Your task to perform on an android device: Go to sound settings Image 0: 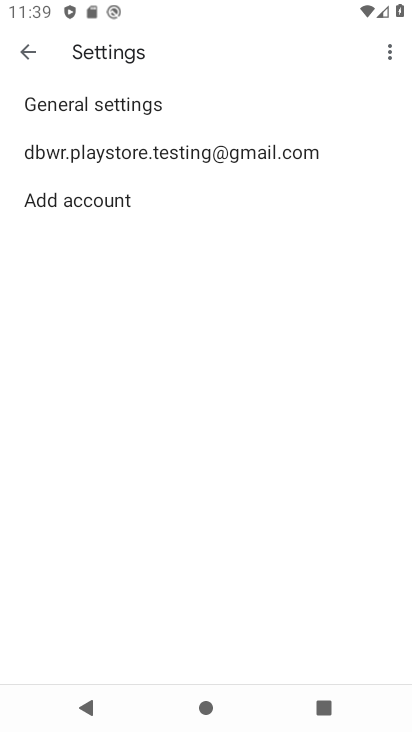
Step 0: press home button
Your task to perform on an android device: Go to sound settings Image 1: 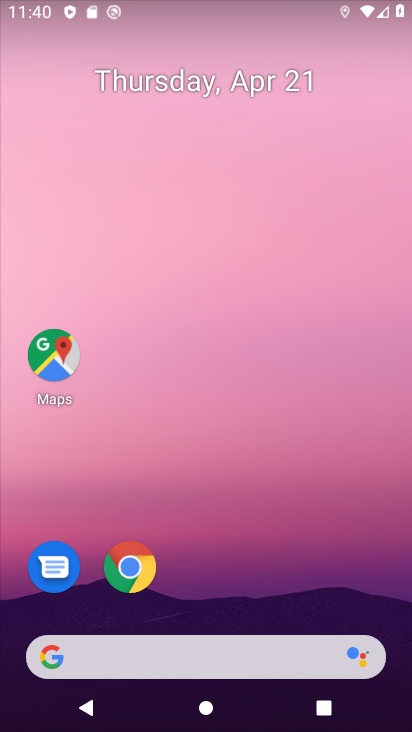
Step 1: drag from (175, 593) to (296, 150)
Your task to perform on an android device: Go to sound settings Image 2: 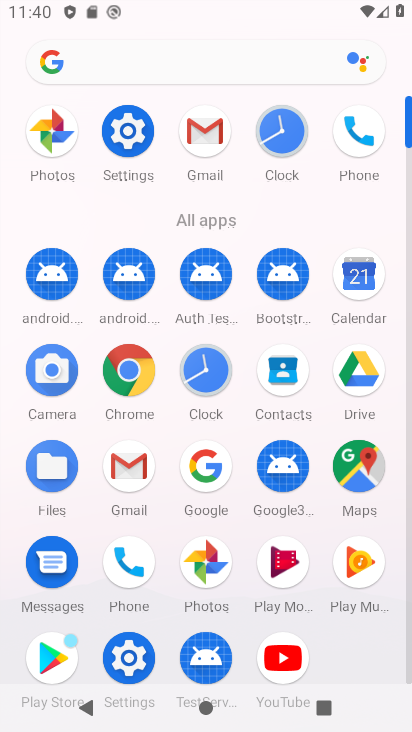
Step 2: click (138, 662)
Your task to perform on an android device: Go to sound settings Image 3: 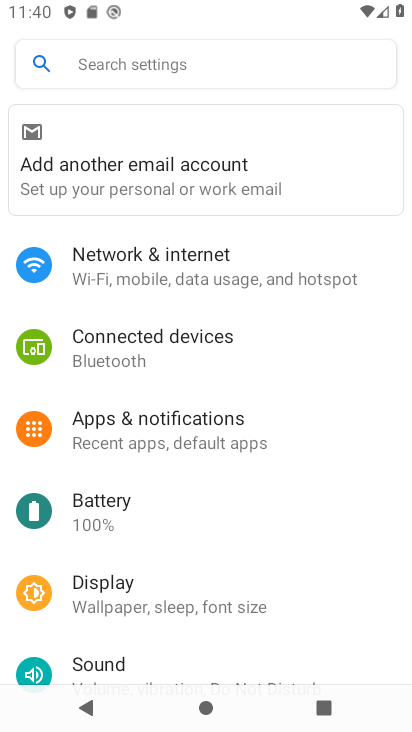
Step 3: drag from (203, 557) to (246, 288)
Your task to perform on an android device: Go to sound settings Image 4: 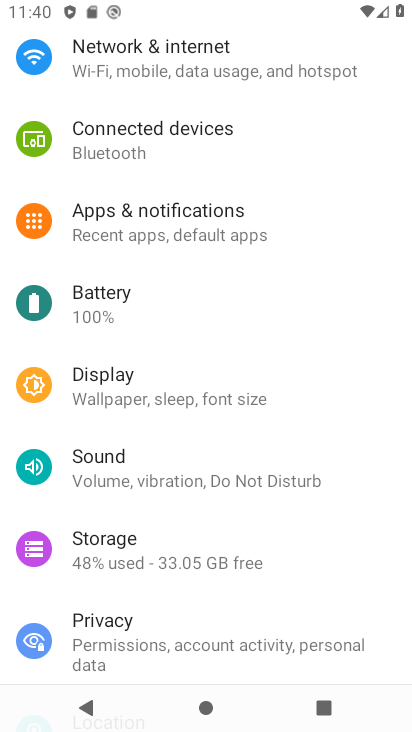
Step 4: click (131, 479)
Your task to perform on an android device: Go to sound settings Image 5: 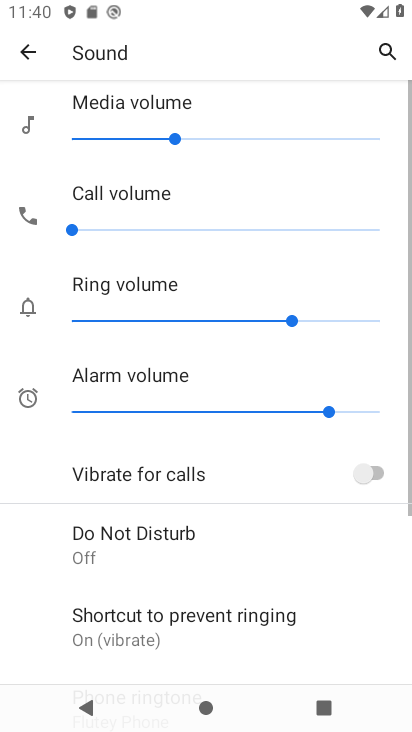
Step 5: task complete